Your task to perform on an android device: turn off javascript in the chrome app Image 0: 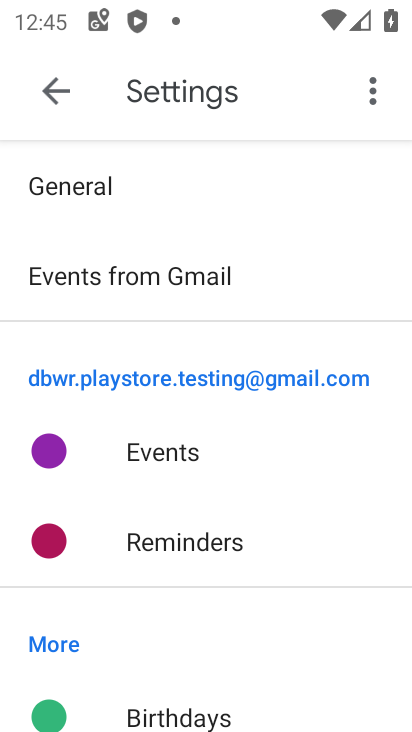
Step 0: press home button
Your task to perform on an android device: turn off javascript in the chrome app Image 1: 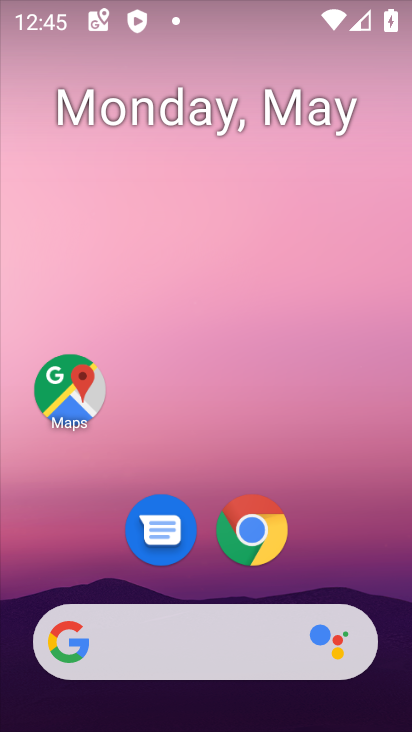
Step 1: click (238, 515)
Your task to perform on an android device: turn off javascript in the chrome app Image 2: 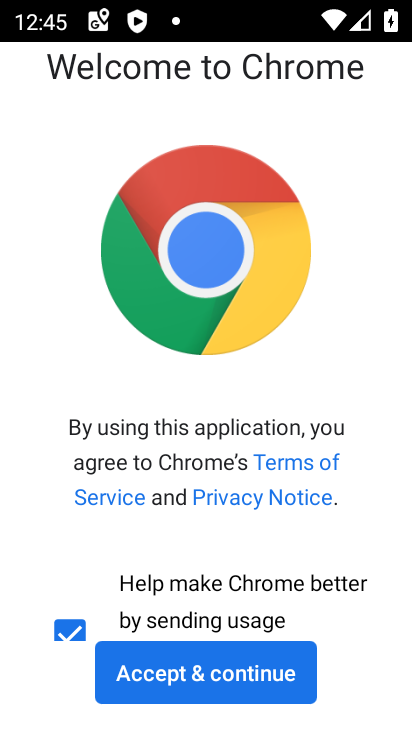
Step 2: click (269, 687)
Your task to perform on an android device: turn off javascript in the chrome app Image 3: 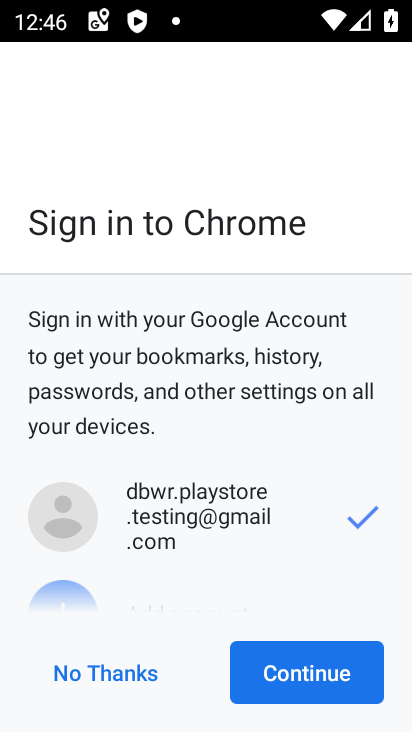
Step 3: click (331, 694)
Your task to perform on an android device: turn off javascript in the chrome app Image 4: 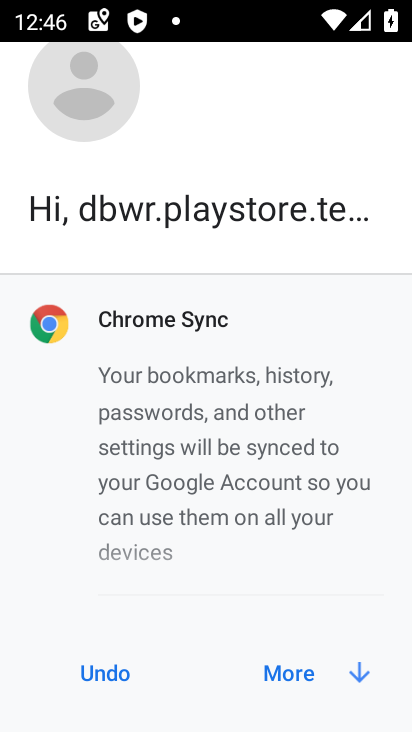
Step 4: click (316, 679)
Your task to perform on an android device: turn off javascript in the chrome app Image 5: 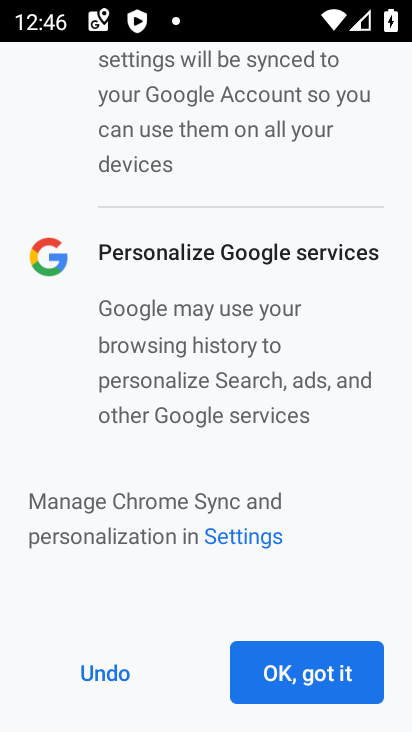
Step 5: click (346, 671)
Your task to perform on an android device: turn off javascript in the chrome app Image 6: 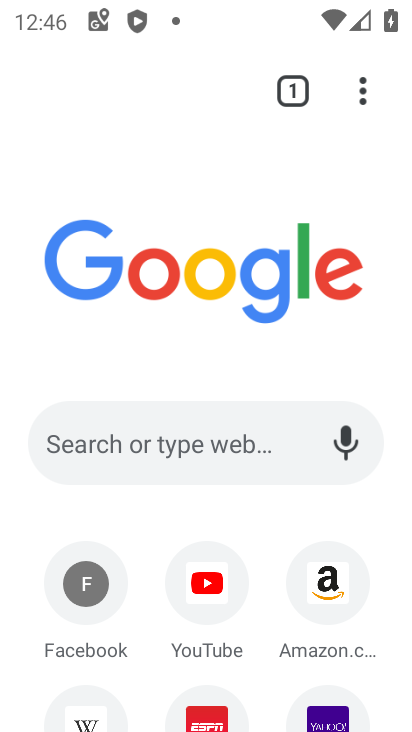
Step 6: drag from (361, 81) to (140, 564)
Your task to perform on an android device: turn off javascript in the chrome app Image 7: 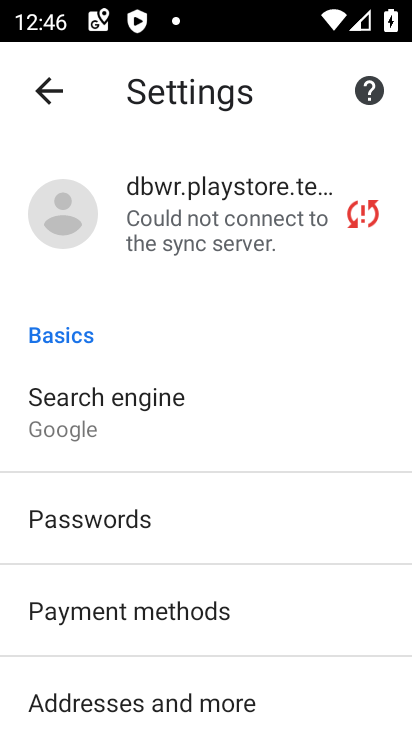
Step 7: drag from (140, 587) to (22, 26)
Your task to perform on an android device: turn off javascript in the chrome app Image 8: 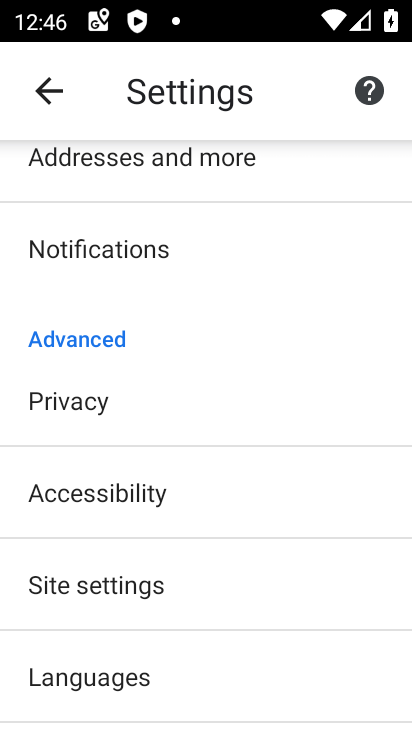
Step 8: click (160, 573)
Your task to perform on an android device: turn off javascript in the chrome app Image 9: 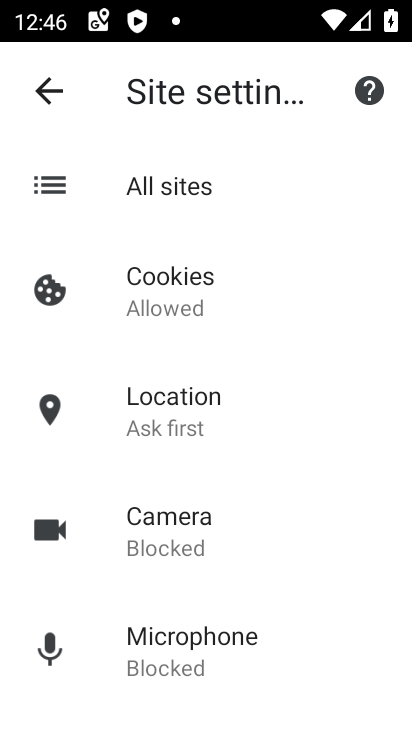
Step 9: drag from (267, 627) to (221, 80)
Your task to perform on an android device: turn off javascript in the chrome app Image 10: 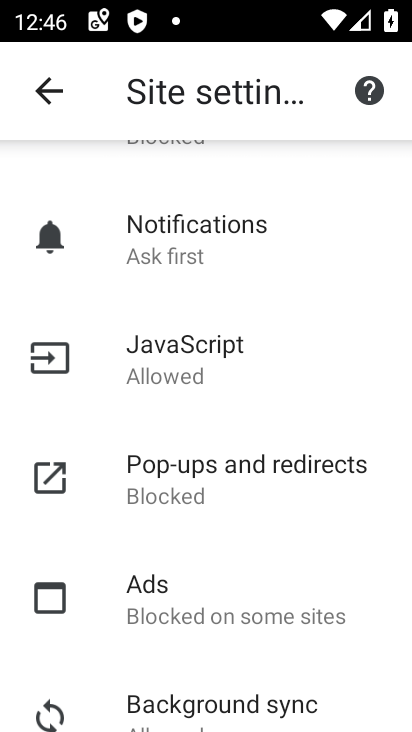
Step 10: click (180, 376)
Your task to perform on an android device: turn off javascript in the chrome app Image 11: 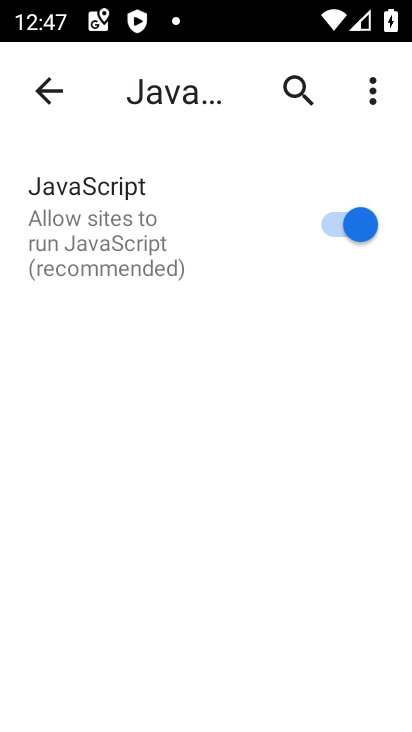
Step 11: click (353, 232)
Your task to perform on an android device: turn off javascript in the chrome app Image 12: 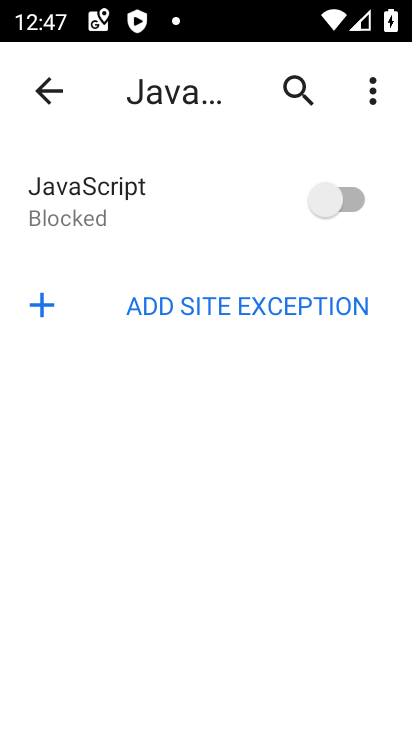
Step 12: task complete